Your task to perform on an android device: star an email in the gmail app Image 0: 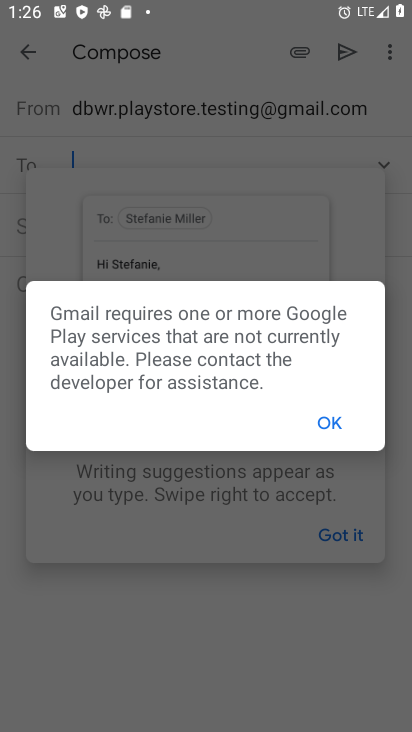
Step 0: press home button
Your task to perform on an android device: star an email in the gmail app Image 1: 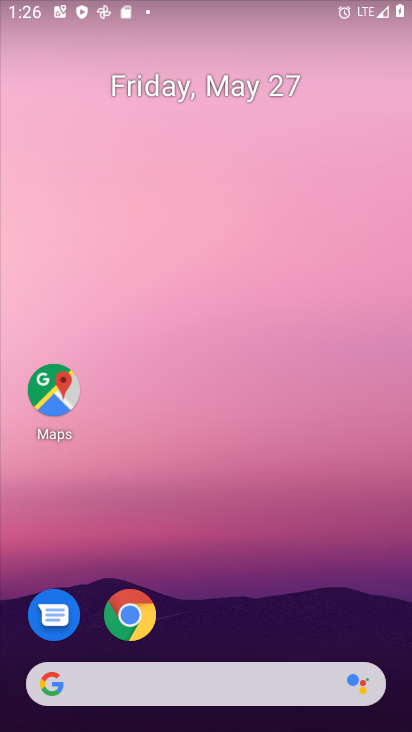
Step 1: drag from (275, 668) to (395, 480)
Your task to perform on an android device: star an email in the gmail app Image 2: 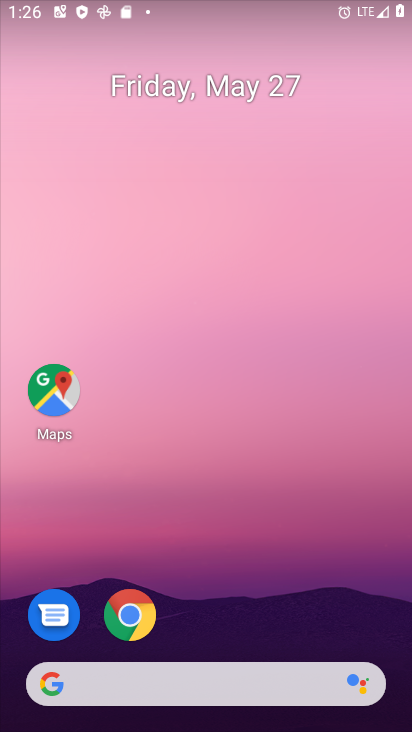
Step 2: click (123, 436)
Your task to perform on an android device: star an email in the gmail app Image 3: 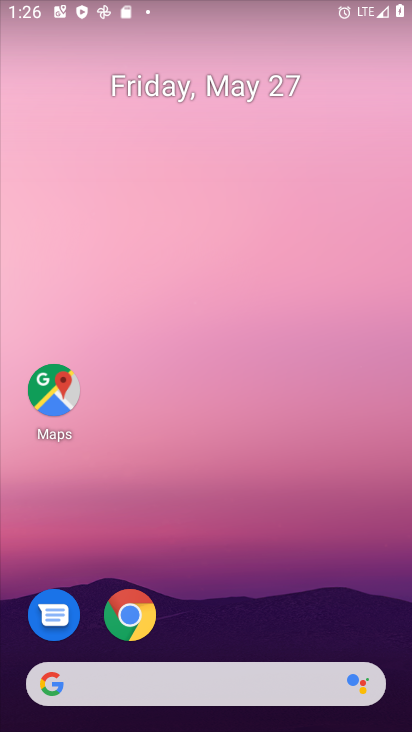
Step 3: drag from (152, 670) to (387, 40)
Your task to perform on an android device: star an email in the gmail app Image 4: 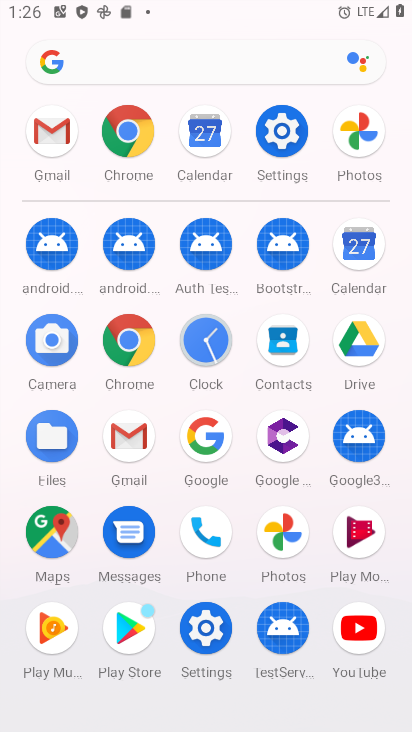
Step 4: click (122, 434)
Your task to perform on an android device: star an email in the gmail app Image 5: 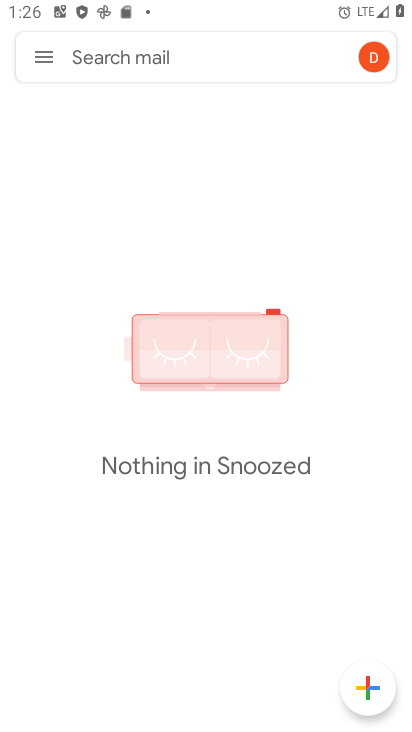
Step 5: click (50, 58)
Your task to perform on an android device: star an email in the gmail app Image 6: 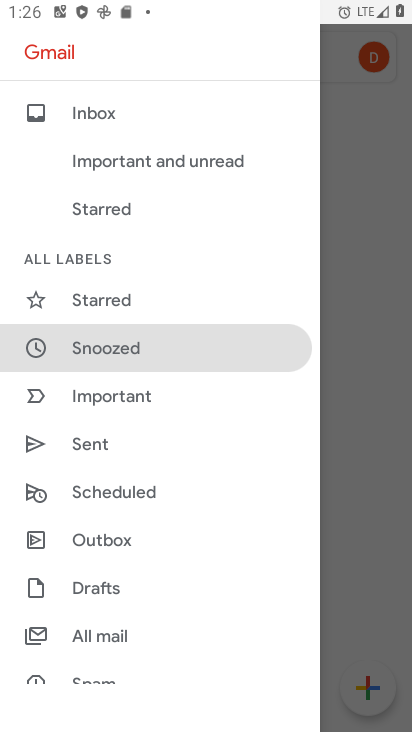
Step 6: click (100, 301)
Your task to perform on an android device: star an email in the gmail app Image 7: 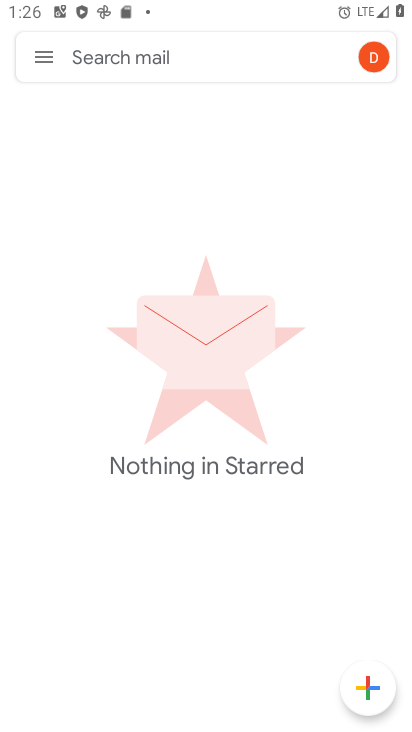
Step 7: task complete